Your task to perform on an android device: change the clock style Image 0: 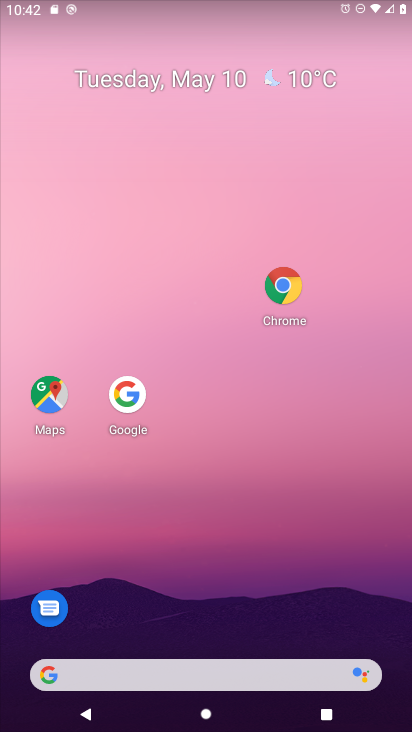
Step 0: drag from (164, 678) to (277, 220)
Your task to perform on an android device: change the clock style Image 1: 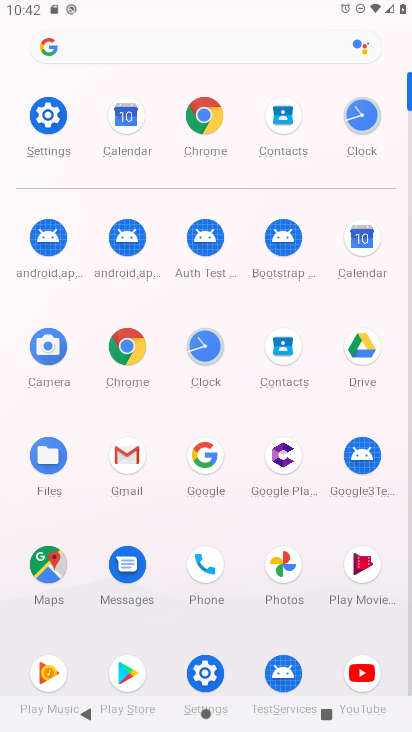
Step 1: click (204, 357)
Your task to perform on an android device: change the clock style Image 2: 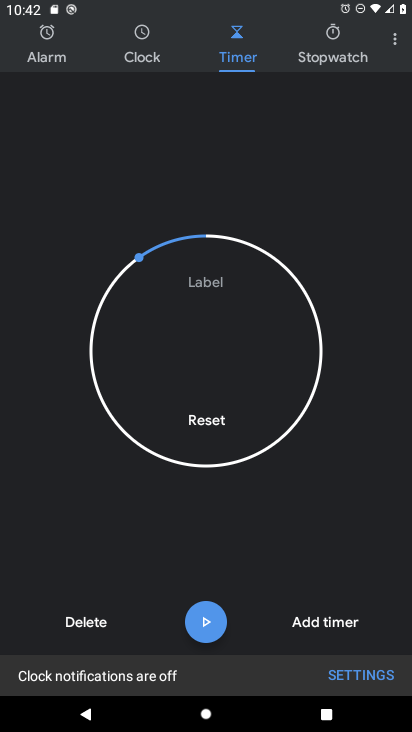
Step 2: click (395, 44)
Your task to perform on an android device: change the clock style Image 3: 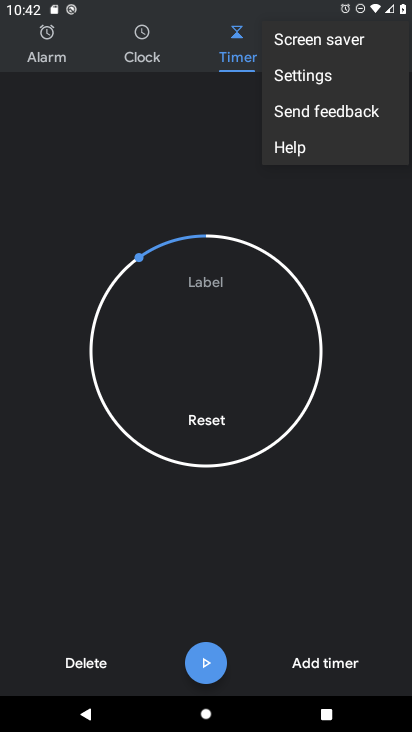
Step 3: click (312, 80)
Your task to perform on an android device: change the clock style Image 4: 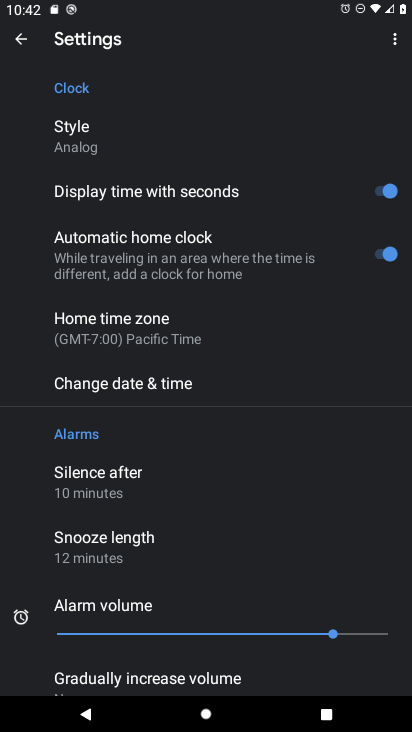
Step 4: click (86, 144)
Your task to perform on an android device: change the clock style Image 5: 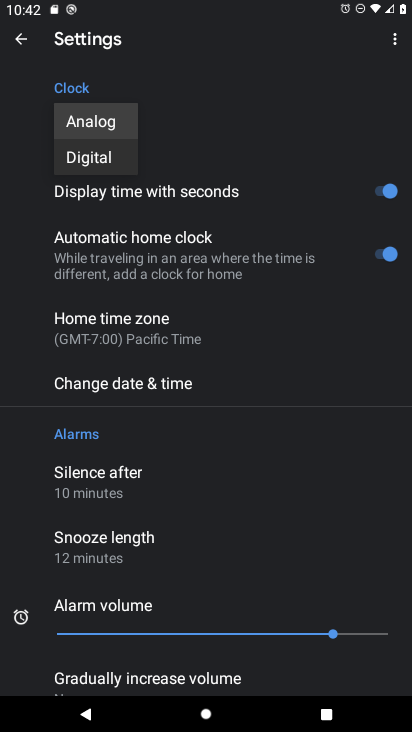
Step 5: click (103, 162)
Your task to perform on an android device: change the clock style Image 6: 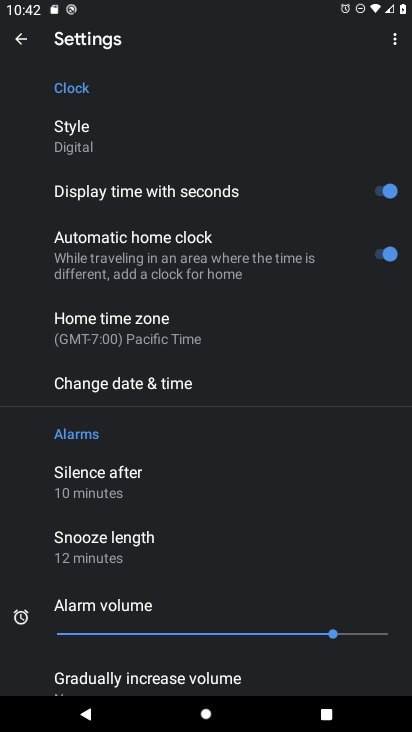
Step 6: task complete